Your task to perform on an android device: toggle data saver in the chrome app Image 0: 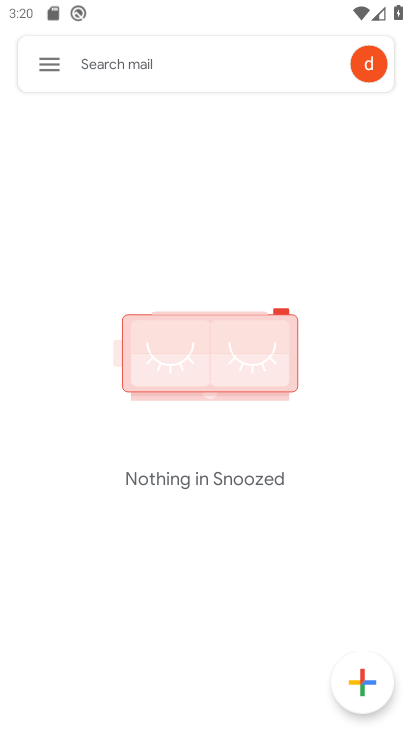
Step 0: press home button
Your task to perform on an android device: toggle data saver in the chrome app Image 1: 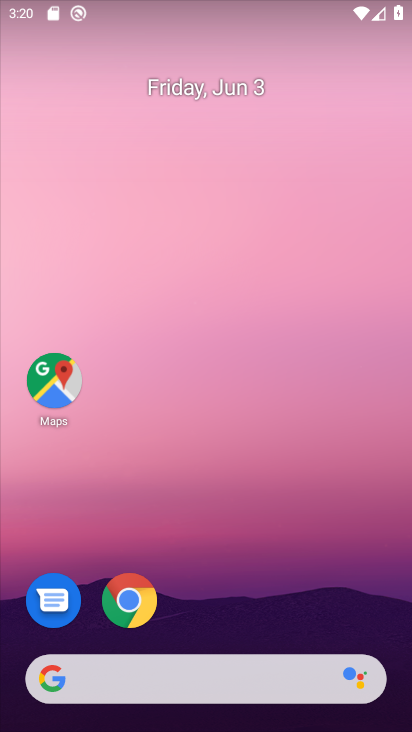
Step 1: click (128, 604)
Your task to perform on an android device: toggle data saver in the chrome app Image 2: 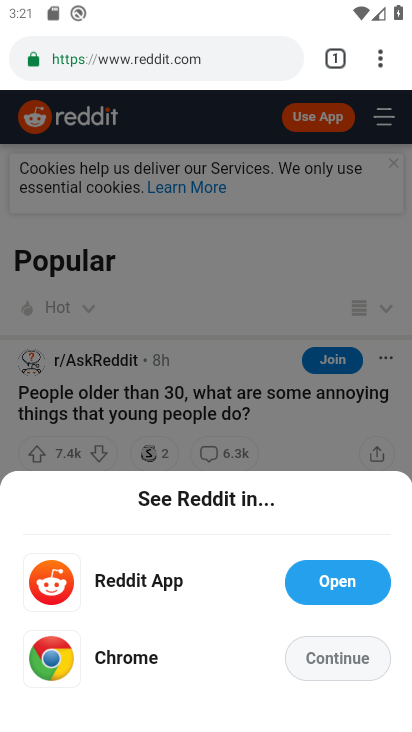
Step 2: drag from (379, 45) to (205, 630)
Your task to perform on an android device: toggle data saver in the chrome app Image 3: 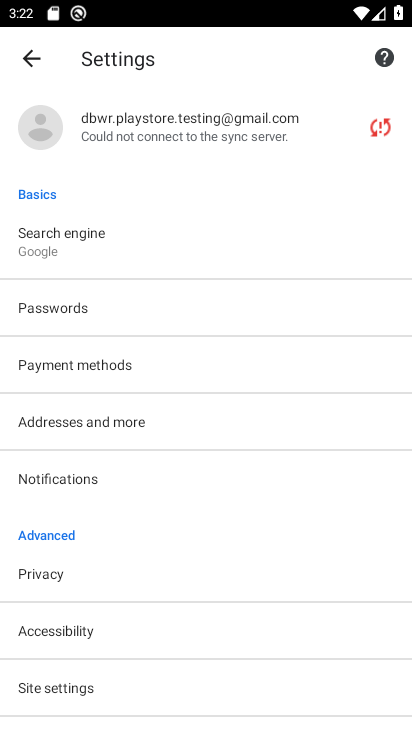
Step 3: drag from (236, 582) to (257, 162)
Your task to perform on an android device: toggle data saver in the chrome app Image 4: 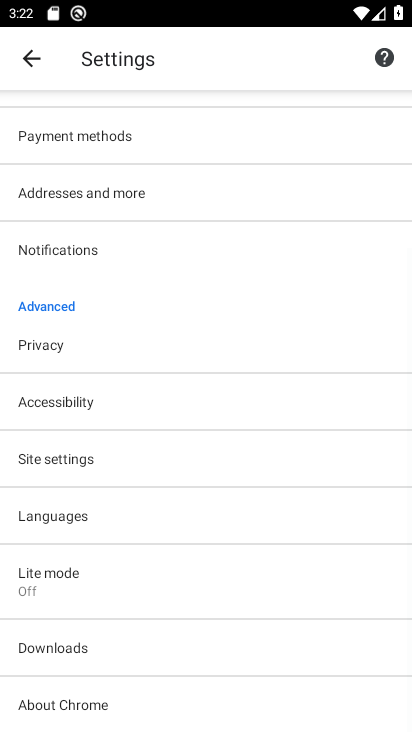
Step 4: click (46, 592)
Your task to perform on an android device: toggle data saver in the chrome app Image 5: 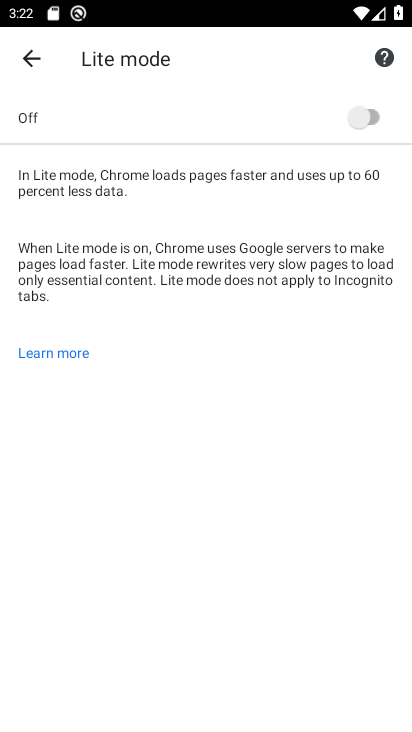
Step 5: click (337, 150)
Your task to perform on an android device: toggle data saver in the chrome app Image 6: 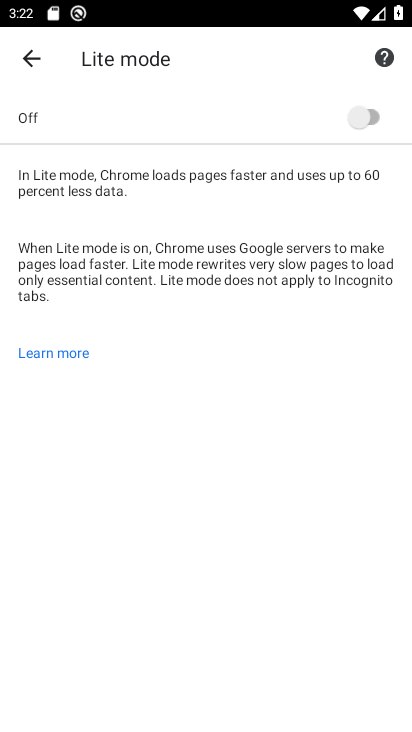
Step 6: click (362, 111)
Your task to perform on an android device: toggle data saver in the chrome app Image 7: 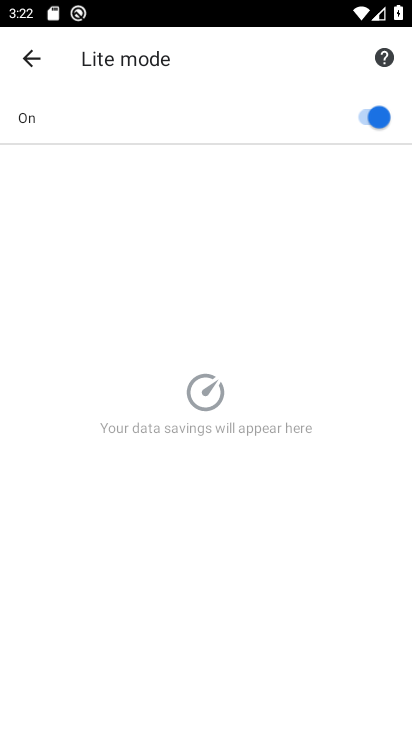
Step 7: task complete